Your task to perform on an android device: Go to display settings Image 0: 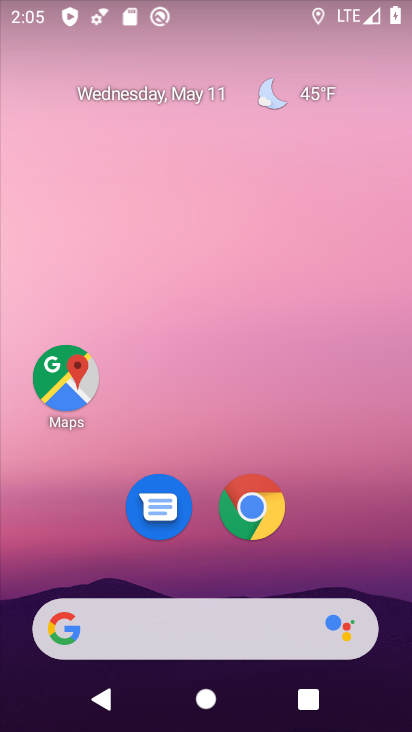
Step 0: drag from (301, 491) to (236, 43)
Your task to perform on an android device: Go to display settings Image 1: 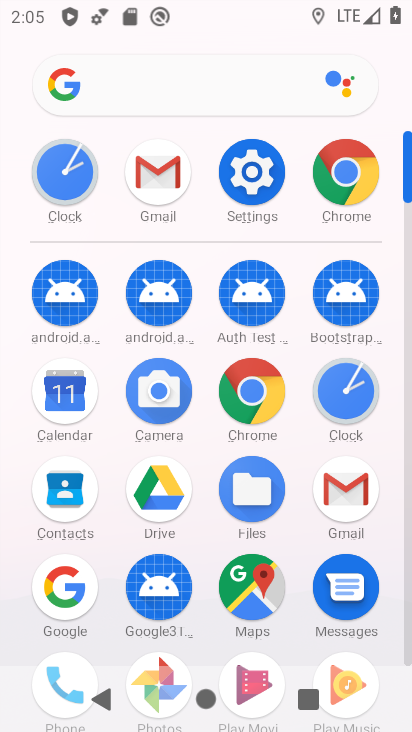
Step 1: drag from (7, 494) to (6, 202)
Your task to perform on an android device: Go to display settings Image 2: 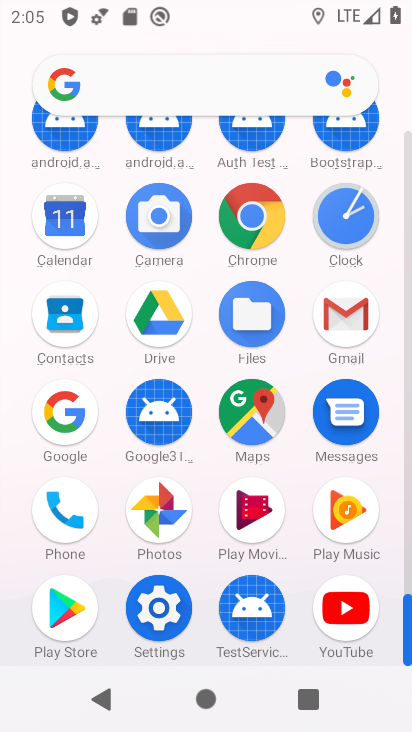
Step 2: click (152, 610)
Your task to perform on an android device: Go to display settings Image 3: 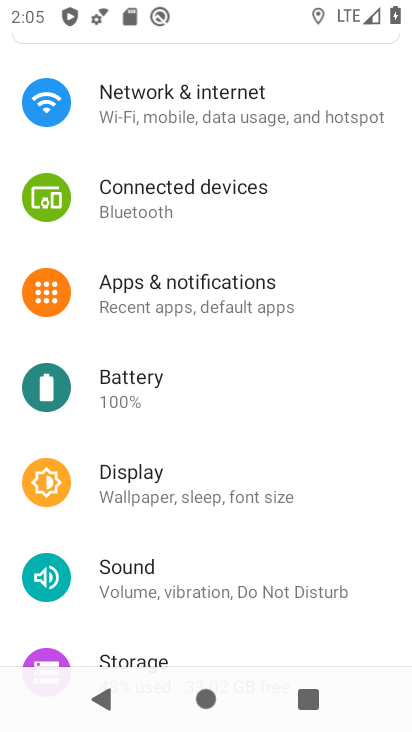
Step 3: drag from (292, 215) to (298, 510)
Your task to perform on an android device: Go to display settings Image 4: 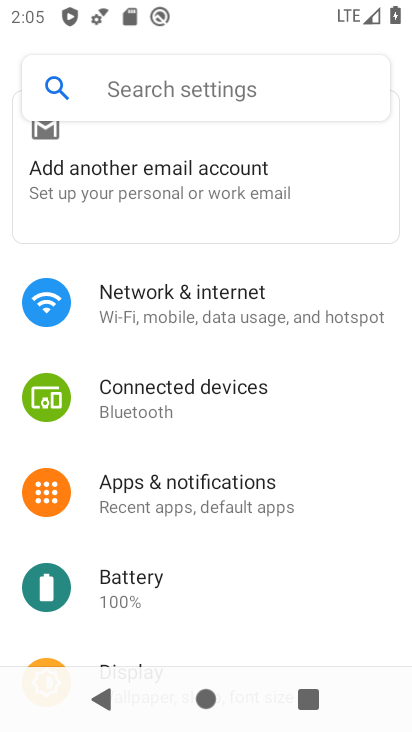
Step 4: drag from (272, 536) to (272, 283)
Your task to perform on an android device: Go to display settings Image 5: 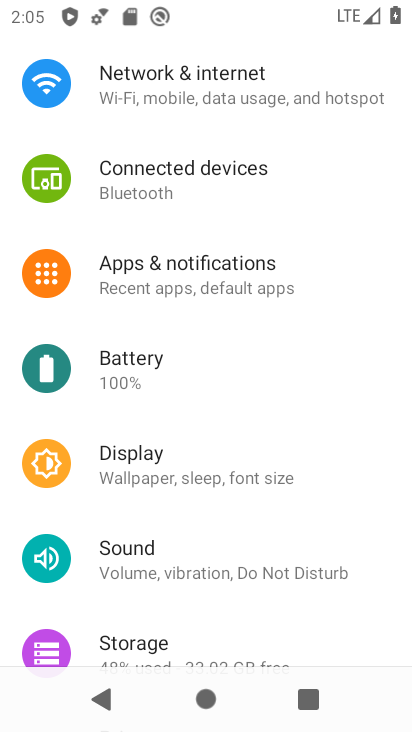
Step 5: click (107, 457)
Your task to perform on an android device: Go to display settings Image 6: 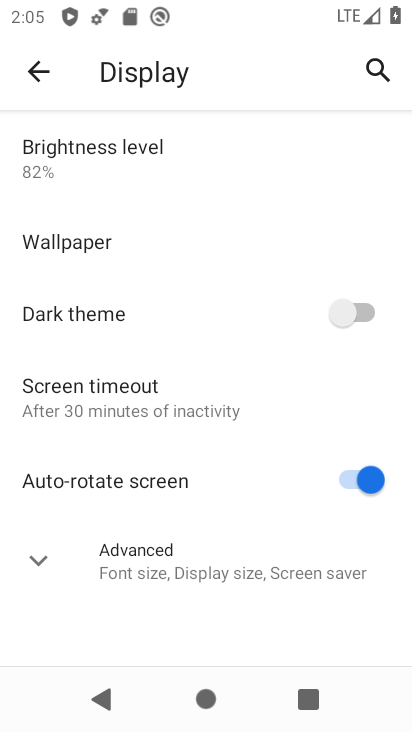
Step 6: click (42, 549)
Your task to perform on an android device: Go to display settings Image 7: 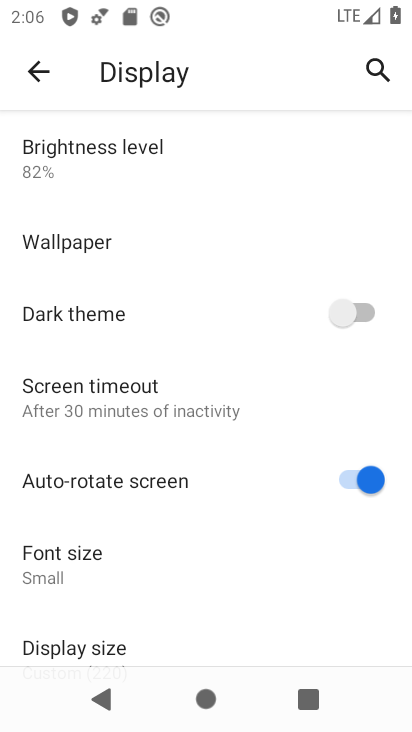
Step 7: task complete